Your task to perform on an android device: open app "Airtel Thanks" (install if not already installed) Image 0: 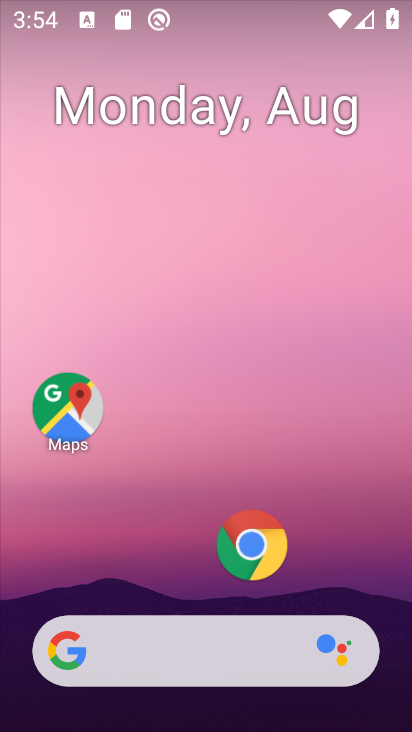
Step 0: drag from (155, 570) to (241, 71)
Your task to perform on an android device: open app "Airtel Thanks" (install if not already installed) Image 1: 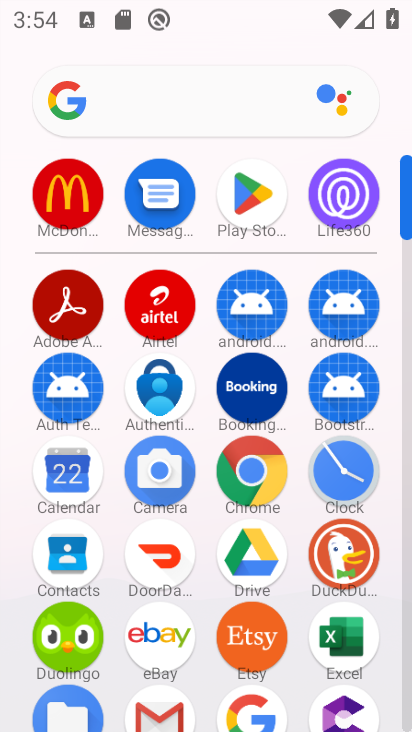
Step 1: click (231, 198)
Your task to perform on an android device: open app "Airtel Thanks" (install if not already installed) Image 2: 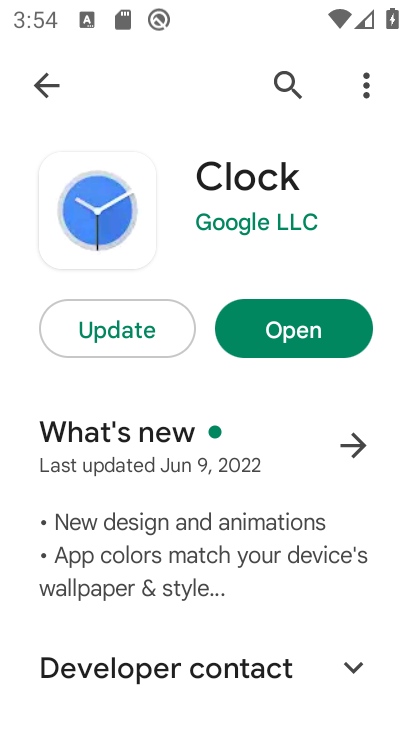
Step 2: click (309, 70)
Your task to perform on an android device: open app "Airtel Thanks" (install if not already installed) Image 3: 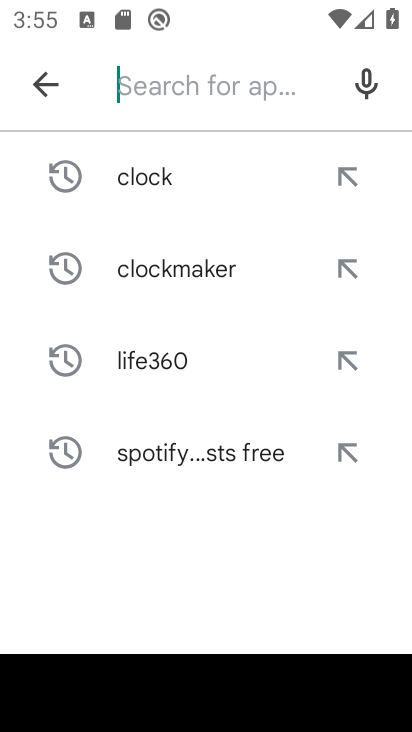
Step 3: click (168, 115)
Your task to perform on an android device: open app "Airtel Thanks" (install if not already installed) Image 4: 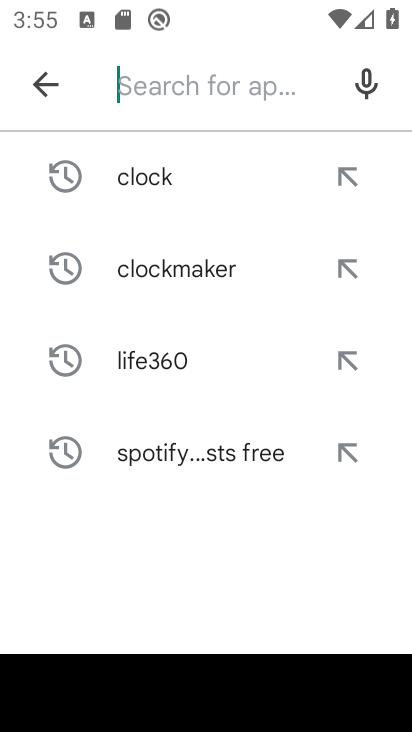
Step 4: type "Airtel Thanks"
Your task to perform on an android device: open app "Airtel Thanks" (install if not already installed) Image 5: 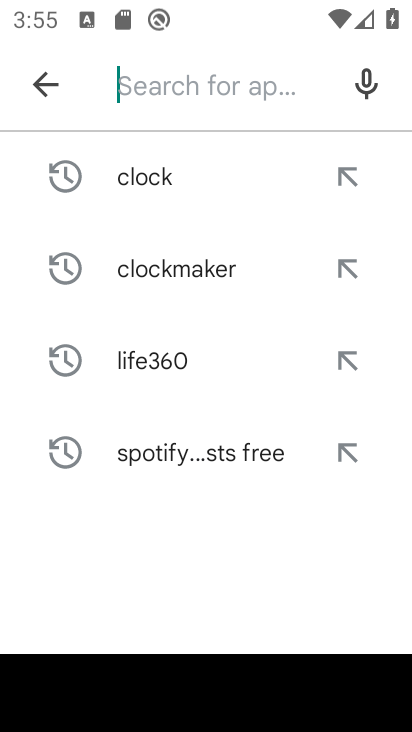
Step 5: click (184, 564)
Your task to perform on an android device: open app "Airtel Thanks" (install if not already installed) Image 6: 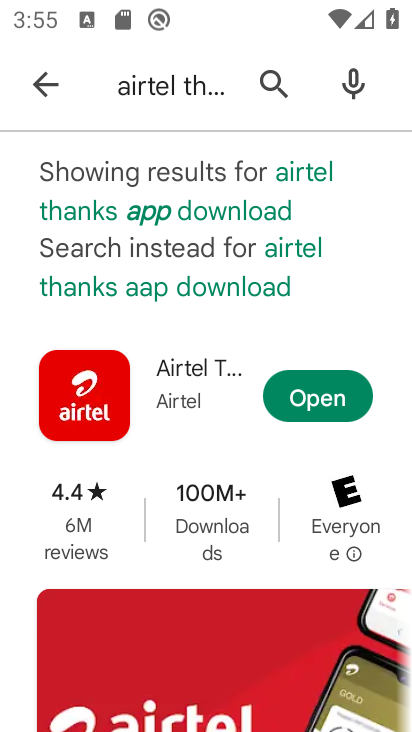
Step 6: click (321, 415)
Your task to perform on an android device: open app "Airtel Thanks" (install if not already installed) Image 7: 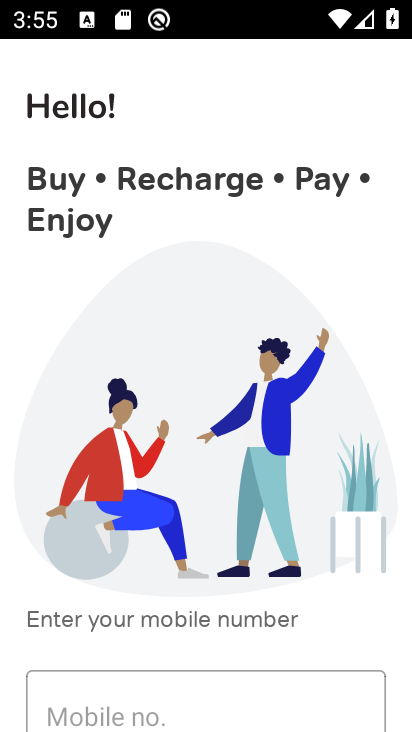
Step 7: task complete